Your task to perform on an android device: Go to notification settings Image 0: 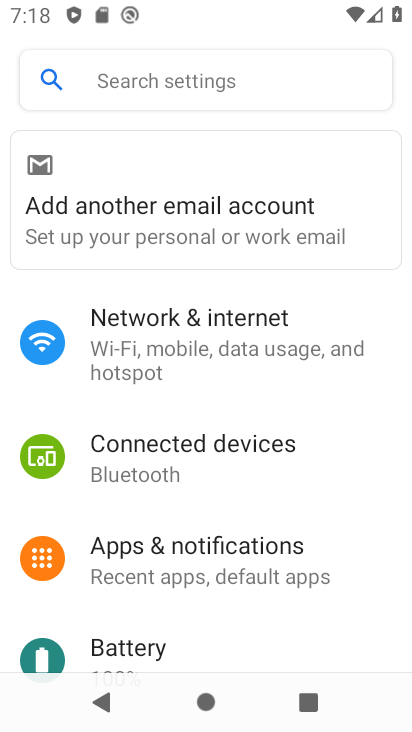
Step 0: press home button
Your task to perform on an android device: Go to notification settings Image 1: 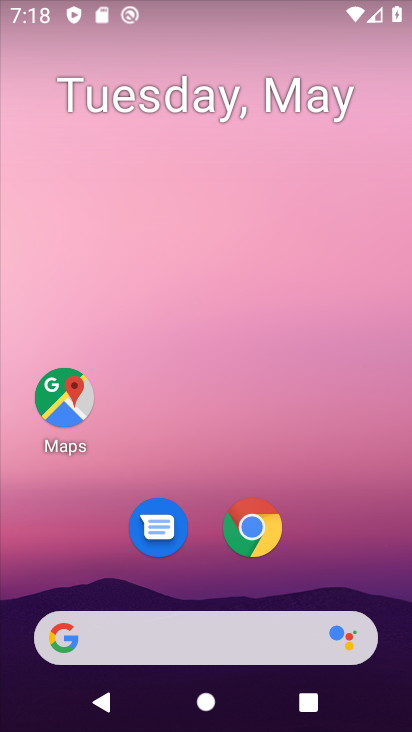
Step 1: drag from (334, 543) to (382, 66)
Your task to perform on an android device: Go to notification settings Image 2: 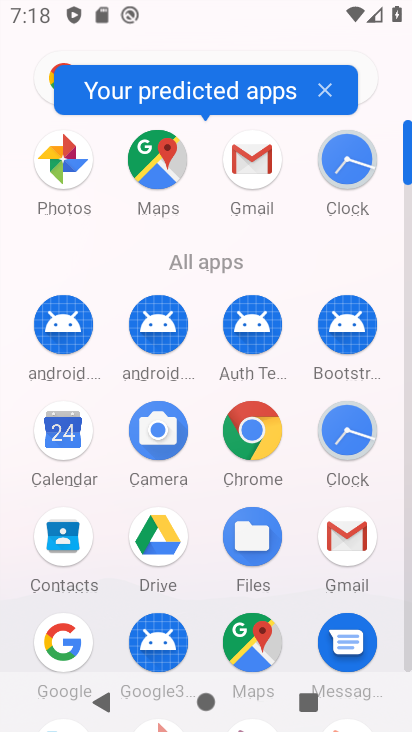
Step 2: drag from (307, 619) to (355, 282)
Your task to perform on an android device: Go to notification settings Image 3: 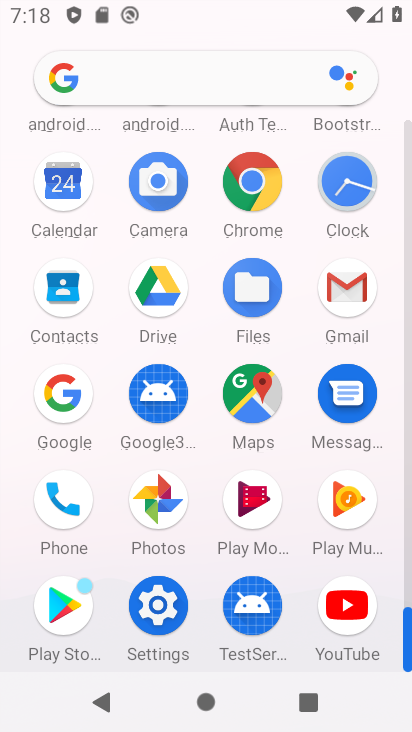
Step 3: click (157, 604)
Your task to perform on an android device: Go to notification settings Image 4: 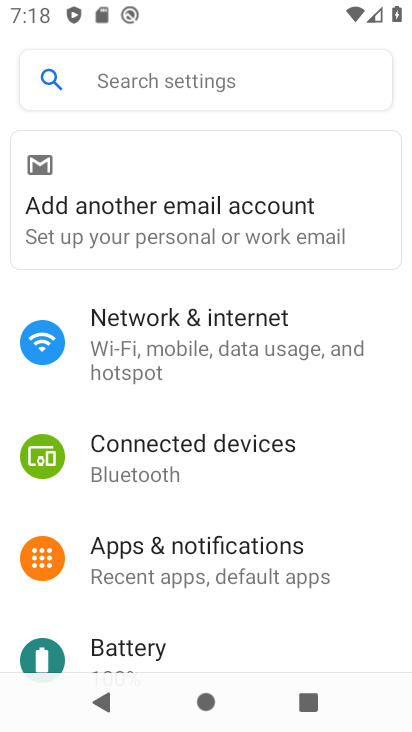
Step 4: click (185, 548)
Your task to perform on an android device: Go to notification settings Image 5: 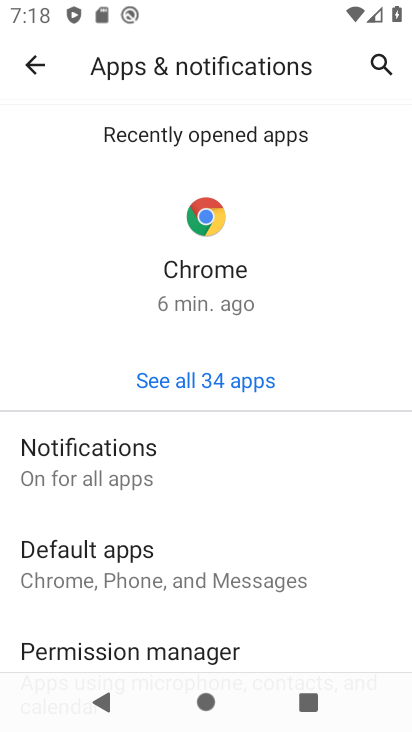
Step 5: click (89, 456)
Your task to perform on an android device: Go to notification settings Image 6: 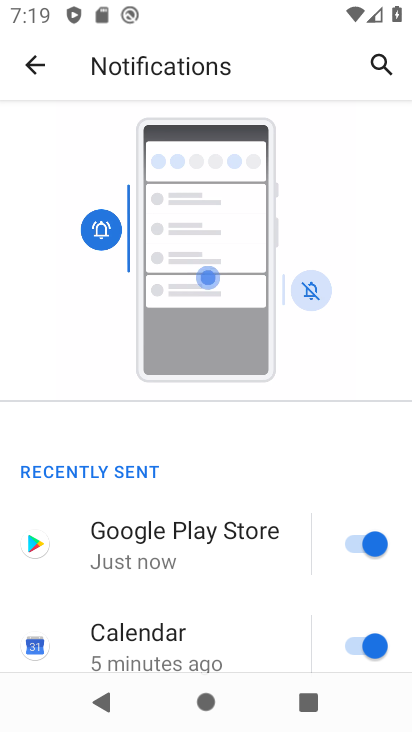
Step 6: drag from (136, 612) to (186, 398)
Your task to perform on an android device: Go to notification settings Image 7: 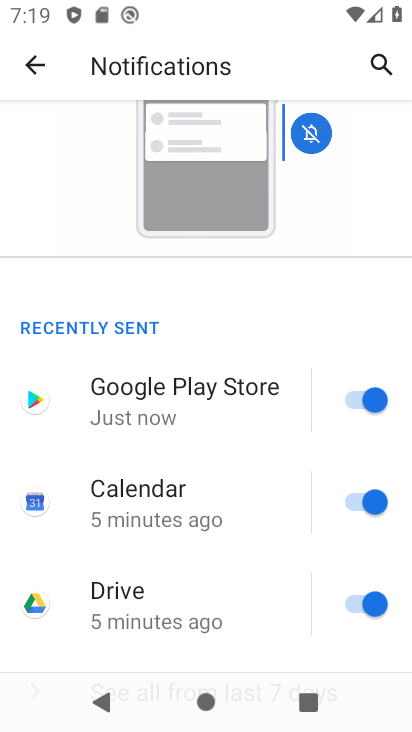
Step 7: drag from (210, 417) to (257, 322)
Your task to perform on an android device: Go to notification settings Image 8: 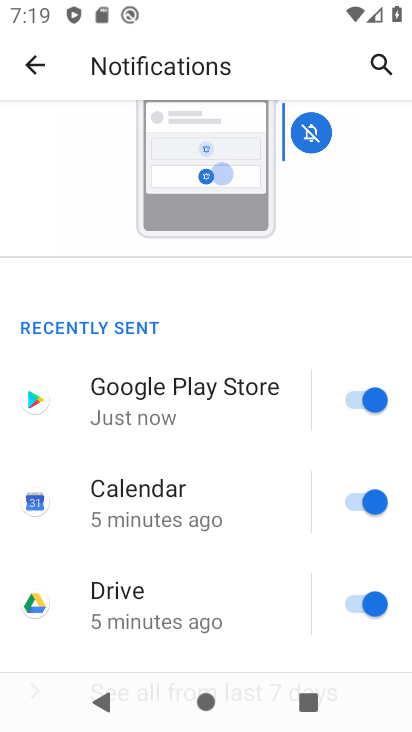
Step 8: drag from (199, 559) to (279, 250)
Your task to perform on an android device: Go to notification settings Image 9: 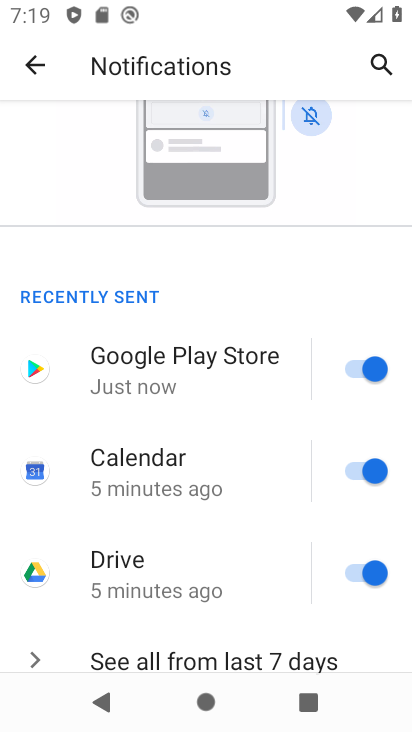
Step 9: drag from (172, 623) to (288, 204)
Your task to perform on an android device: Go to notification settings Image 10: 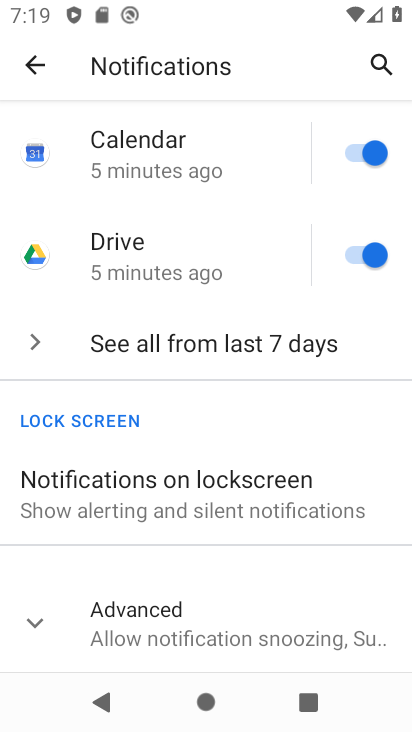
Step 10: click (175, 623)
Your task to perform on an android device: Go to notification settings Image 11: 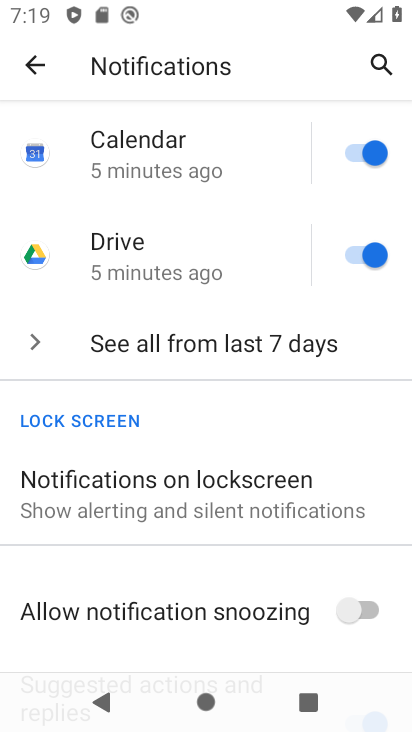
Step 11: task complete